Your task to perform on an android device: Go to Amazon Image 0: 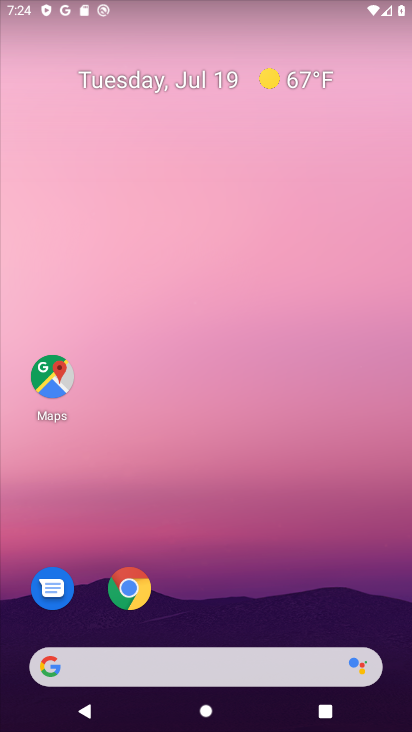
Step 0: drag from (347, 582) to (386, 116)
Your task to perform on an android device: Go to Amazon Image 1: 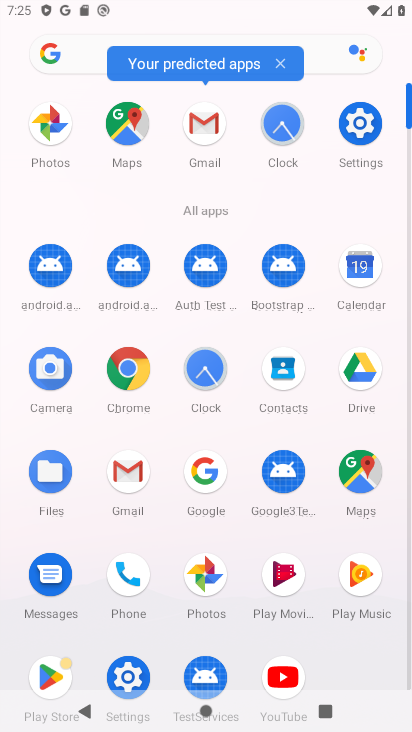
Step 1: click (118, 367)
Your task to perform on an android device: Go to Amazon Image 2: 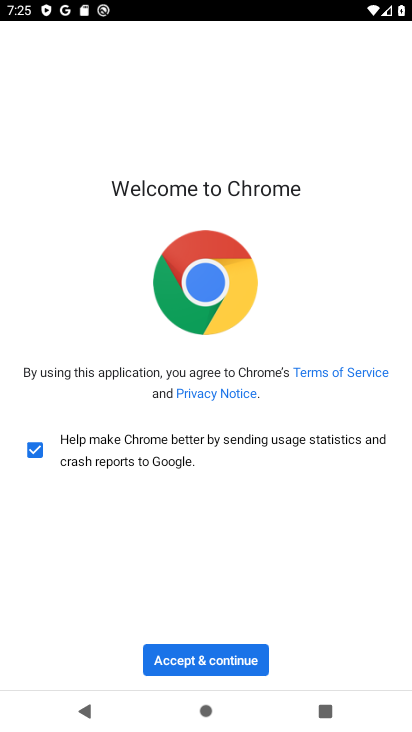
Step 2: click (220, 666)
Your task to perform on an android device: Go to Amazon Image 3: 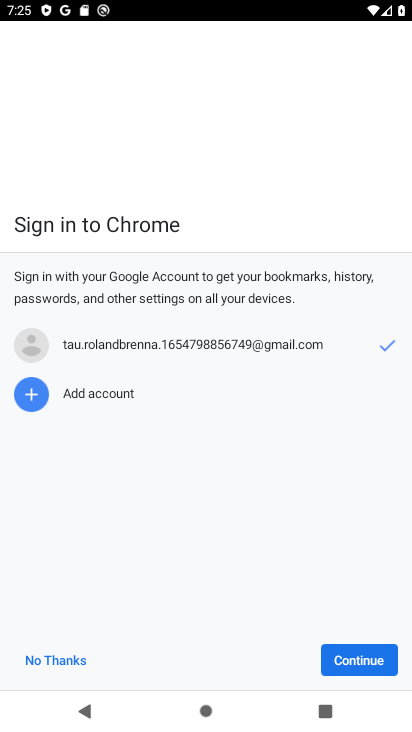
Step 3: click (365, 665)
Your task to perform on an android device: Go to Amazon Image 4: 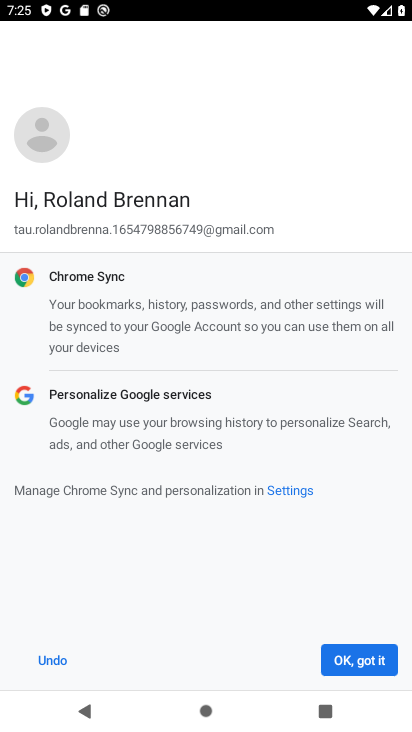
Step 4: click (365, 665)
Your task to perform on an android device: Go to Amazon Image 5: 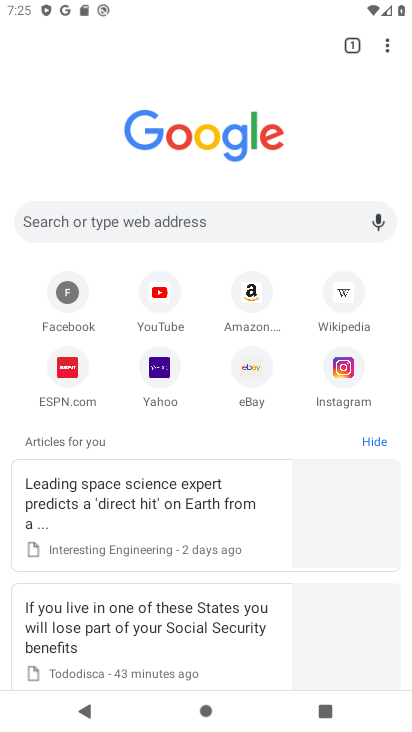
Step 5: click (270, 219)
Your task to perform on an android device: Go to Amazon Image 6: 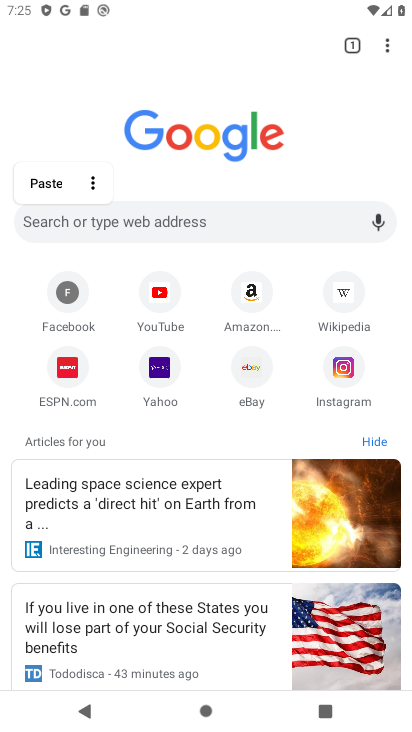
Step 6: type "amazon"
Your task to perform on an android device: Go to Amazon Image 7: 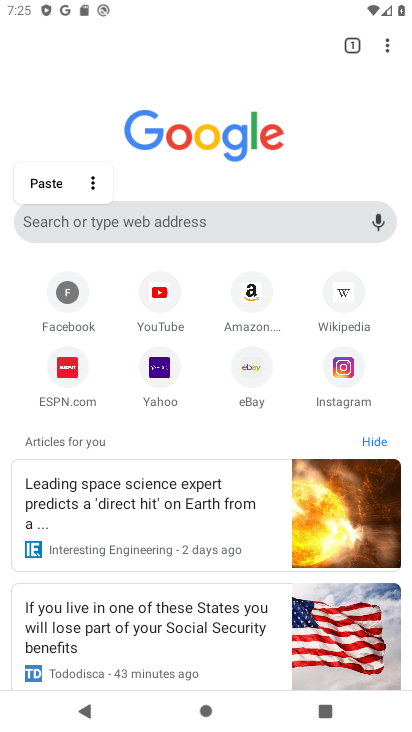
Step 7: click (241, 218)
Your task to perform on an android device: Go to Amazon Image 8: 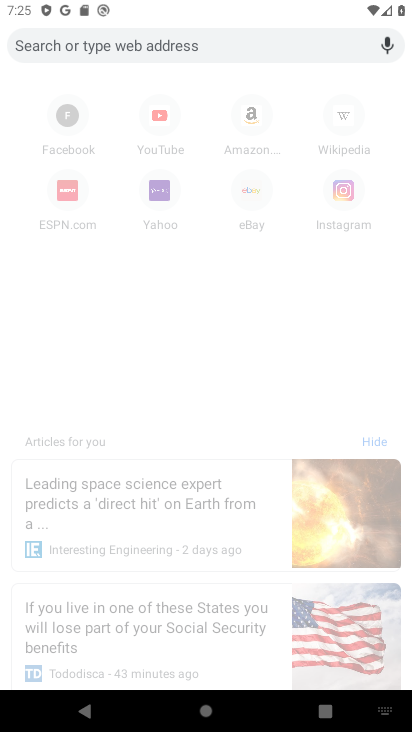
Step 8: type "amazon"
Your task to perform on an android device: Go to Amazon Image 9: 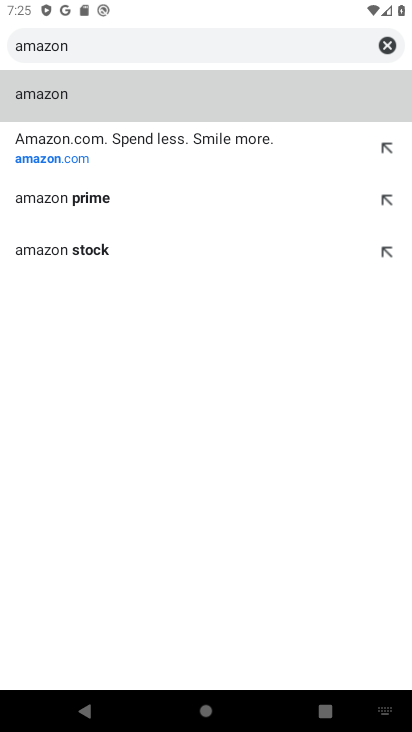
Step 9: click (162, 99)
Your task to perform on an android device: Go to Amazon Image 10: 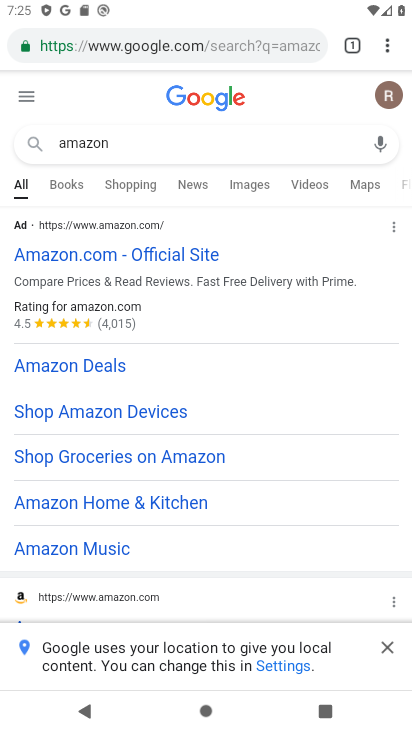
Step 10: task complete